Your task to perform on an android device: add a contact in the contacts app Image 0: 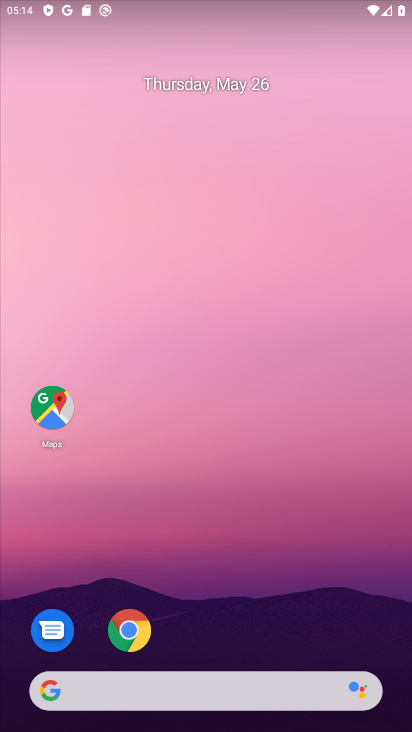
Step 0: drag from (143, 662) to (240, 150)
Your task to perform on an android device: add a contact in the contacts app Image 1: 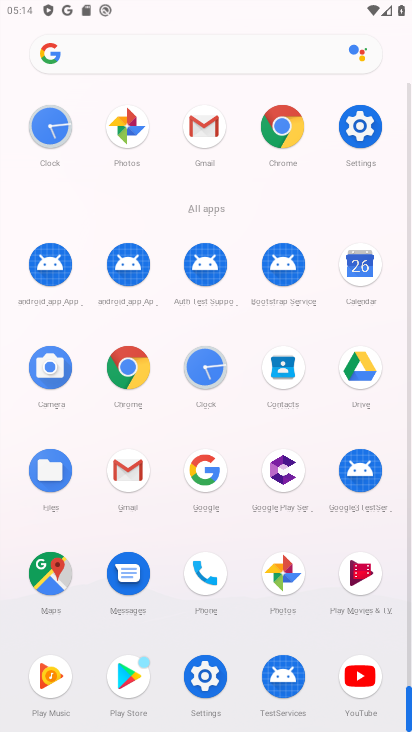
Step 1: click (288, 373)
Your task to perform on an android device: add a contact in the contacts app Image 2: 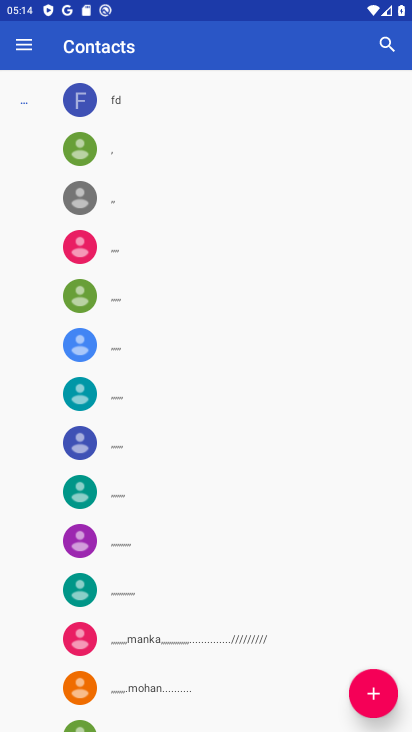
Step 2: click (381, 694)
Your task to perform on an android device: add a contact in the contacts app Image 3: 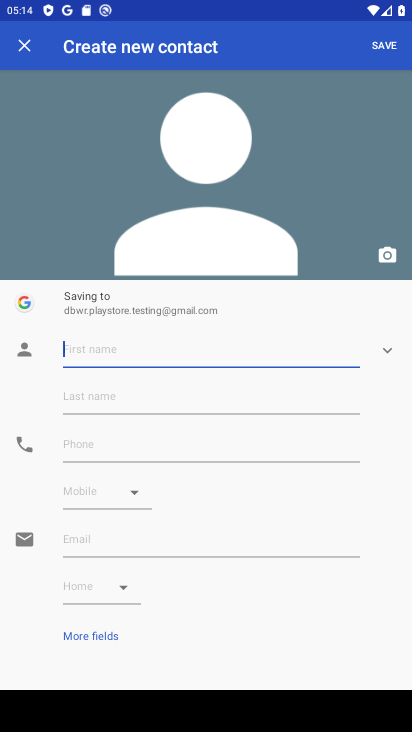
Step 3: type "popop"
Your task to perform on an android device: add a contact in the contacts app Image 4: 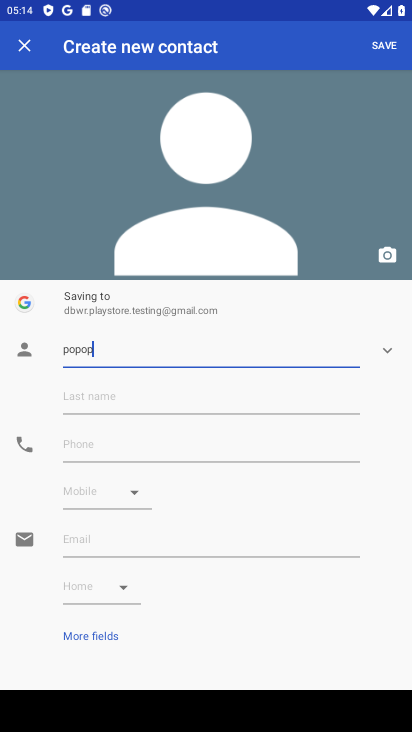
Step 4: click (119, 435)
Your task to perform on an android device: add a contact in the contacts app Image 5: 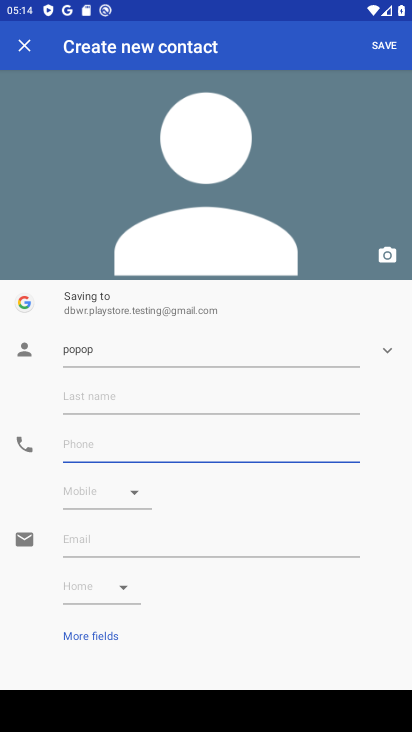
Step 5: type "909090999"
Your task to perform on an android device: add a contact in the contacts app Image 6: 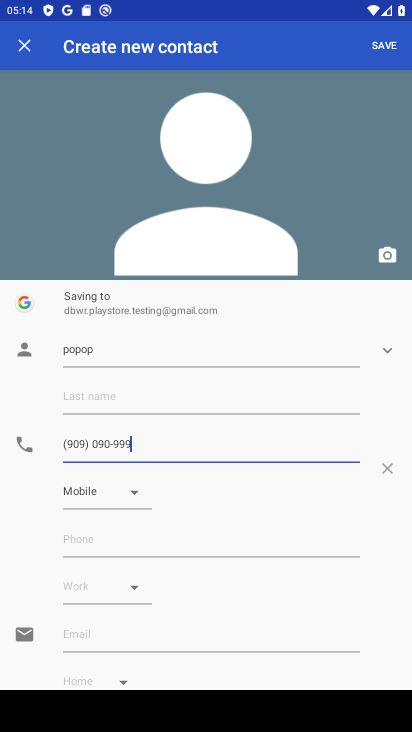
Step 6: click (387, 38)
Your task to perform on an android device: add a contact in the contacts app Image 7: 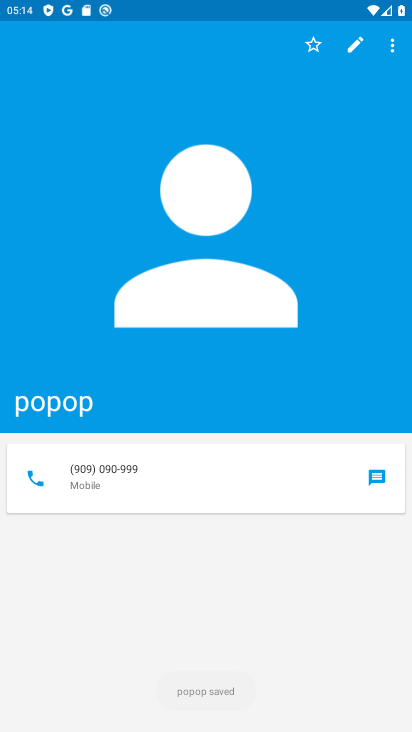
Step 7: task complete